Your task to perform on an android device: empty trash in the gmail app Image 0: 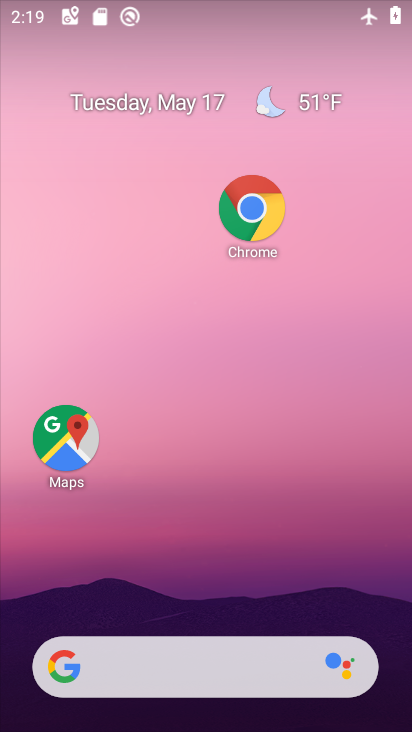
Step 0: drag from (203, 635) to (71, 35)
Your task to perform on an android device: empty trash in the gmail app Image 1: 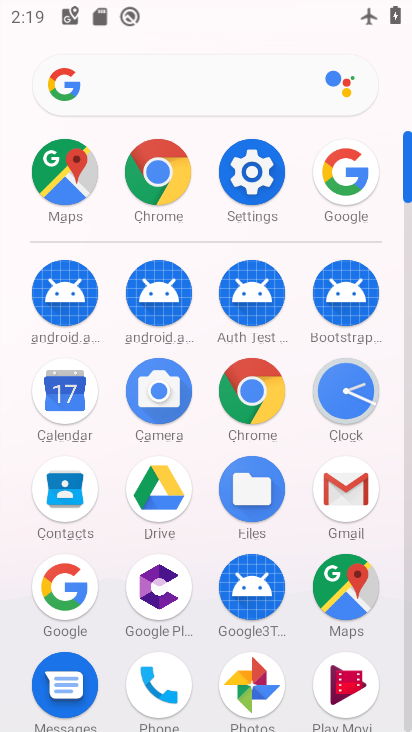
Step 1: click (327, 487)
Your task to perform on an android device: empty trash in the gmail app Image 2: 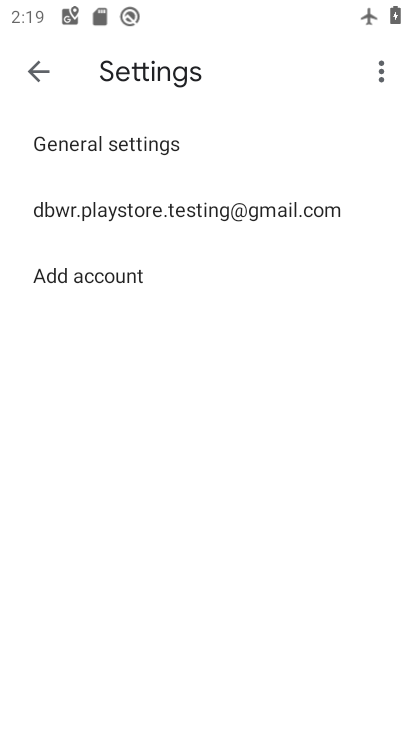
Step 2: click (27, 63)
Your task to perform on an android device: empty trash in the gmail app Image 3: 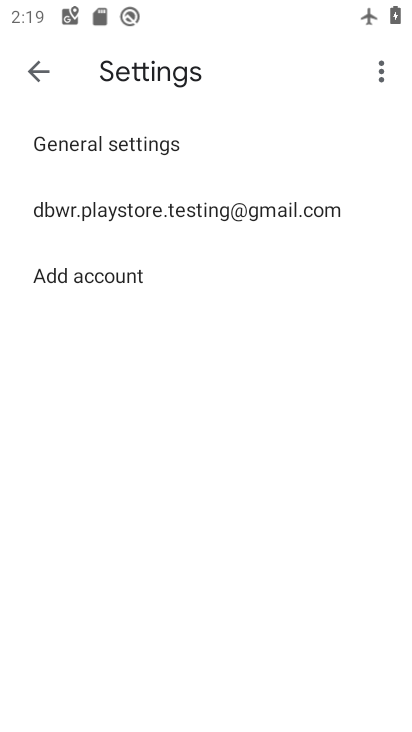
Step 3: click (51, 70)
Your task to perform on an android device: empty trash in the gmail app Image 4: 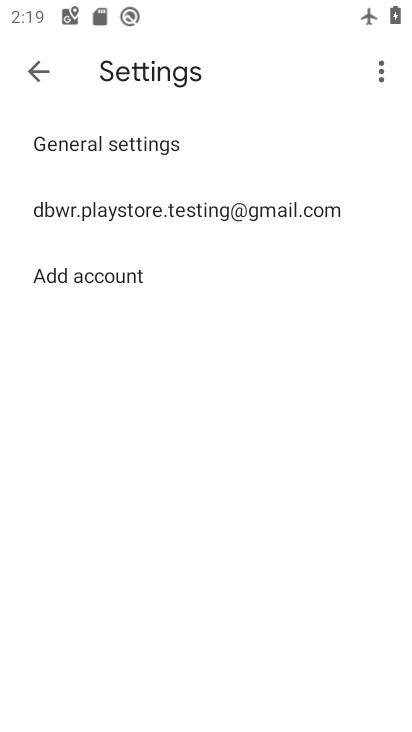
Step 4: click (51, 70)
Your task to perform on an android device: empty trash in the gmail app Image 5: 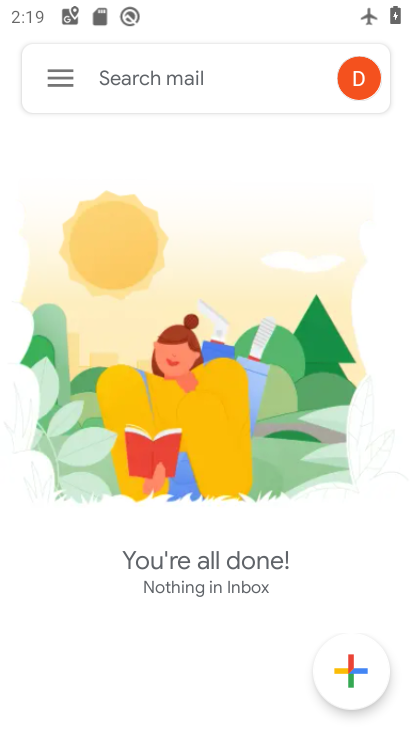
Step 5: click (51, 70)
Your task to perform on an android device: empty trash in the gmail app Image 6: 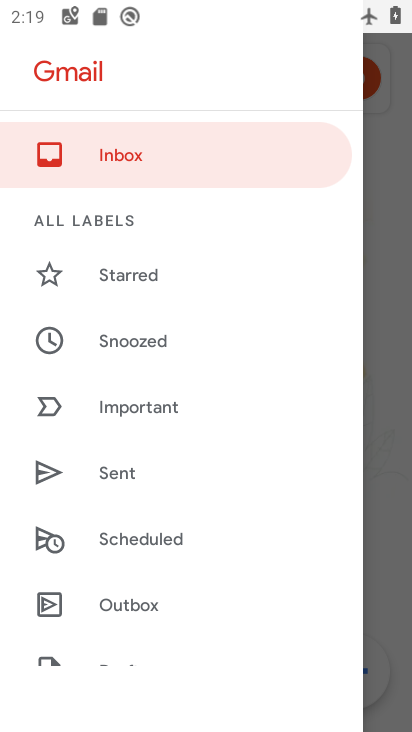
Step 6: drag from (112, 574) to (76, 288)
Your task to perform on an android device: empty trash in the gmail app Image 7: 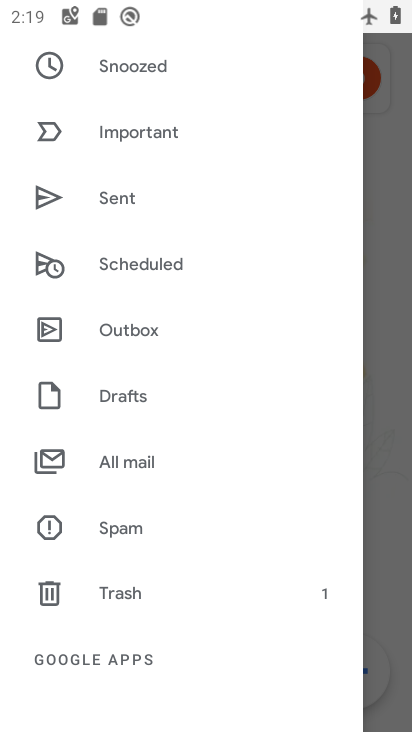
Step 7: click (122, 596)
Your task to perform on an android device: empty trash in the gmail app Image 8: 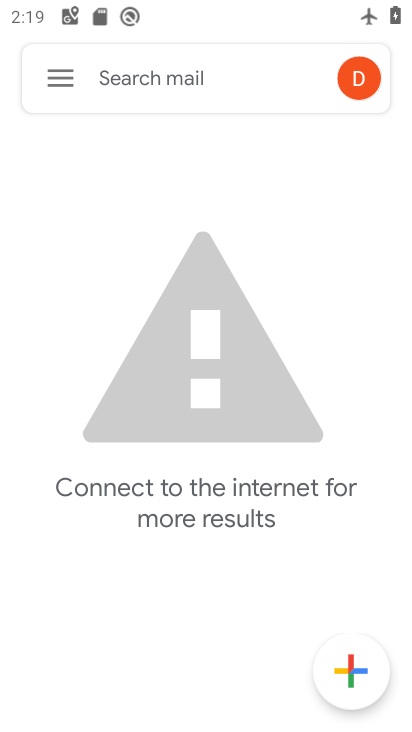
Step 8: task complete